Your task to perform on an android device: Clear all items from cart on walmart.com. Search for razer naga on walmart.com, select the first entry, and add it to the cart. Image 0: 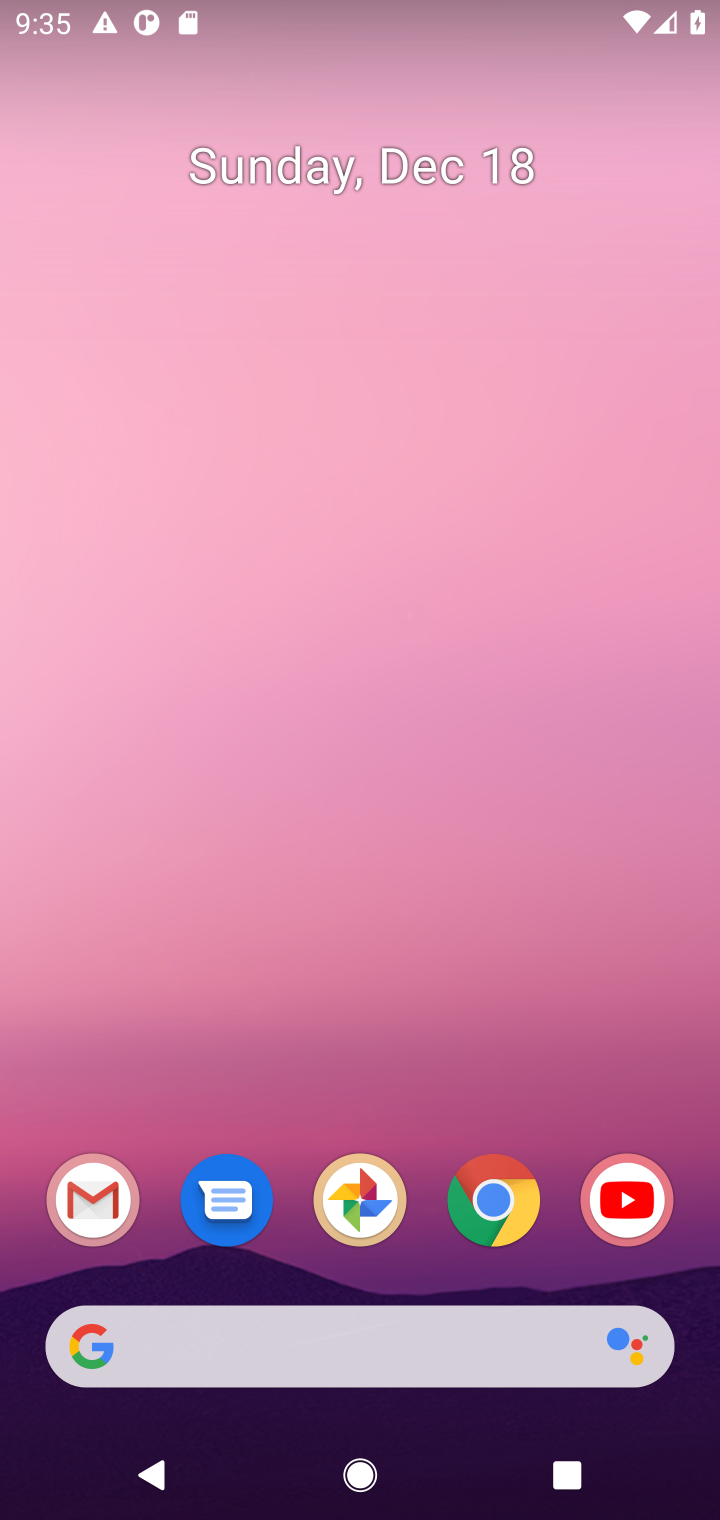
Step 0: click (493, 1207)
Your task to perform on an android device: Clear all items from cart on walmart.com. Search for razer naga on walmart.com, select the first entry, and add it to the cart. Image 1: 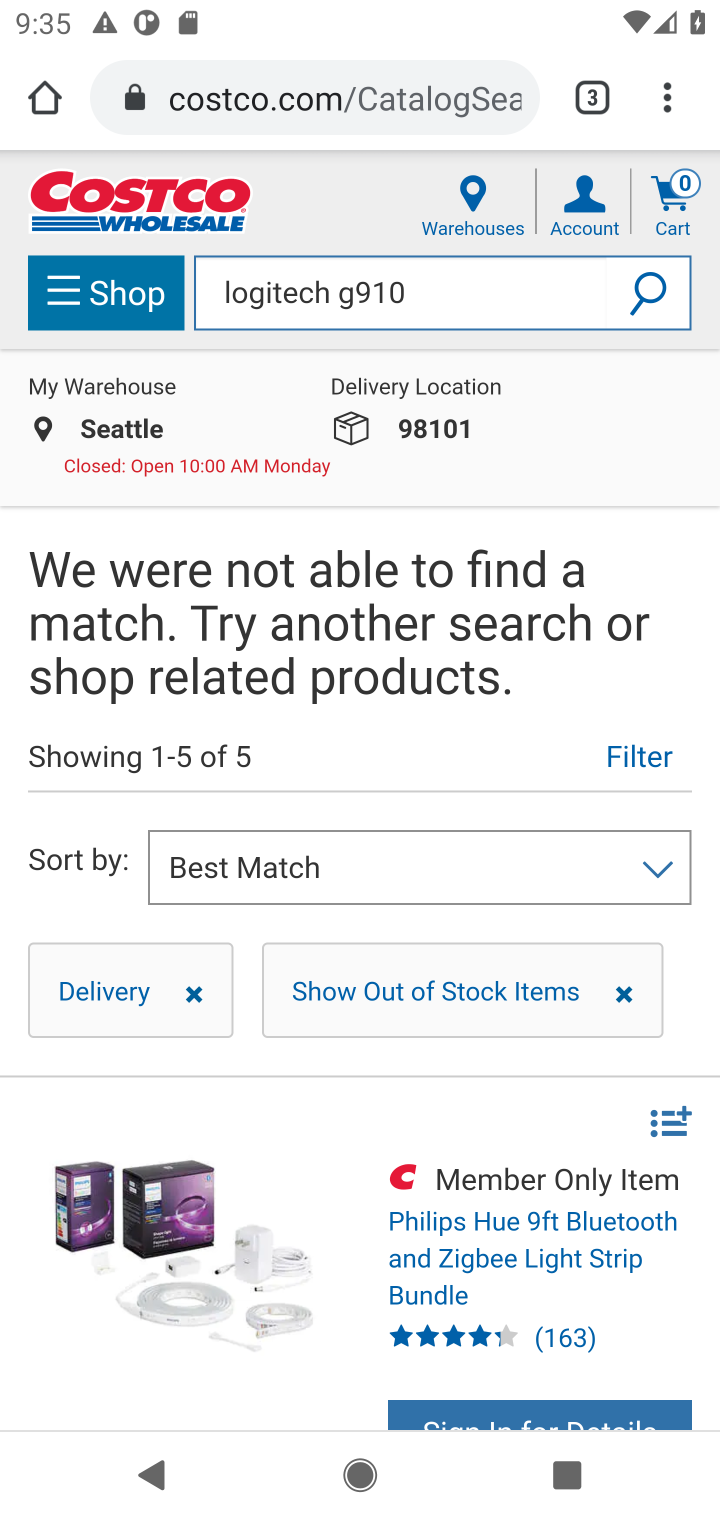
Step 1: click (252, 108)
Your task to perform on an android device: Clear all items from cart on walmart.com. Search for razer naga on walmart.com, select the first entry, and add it to the cart. Image 2: 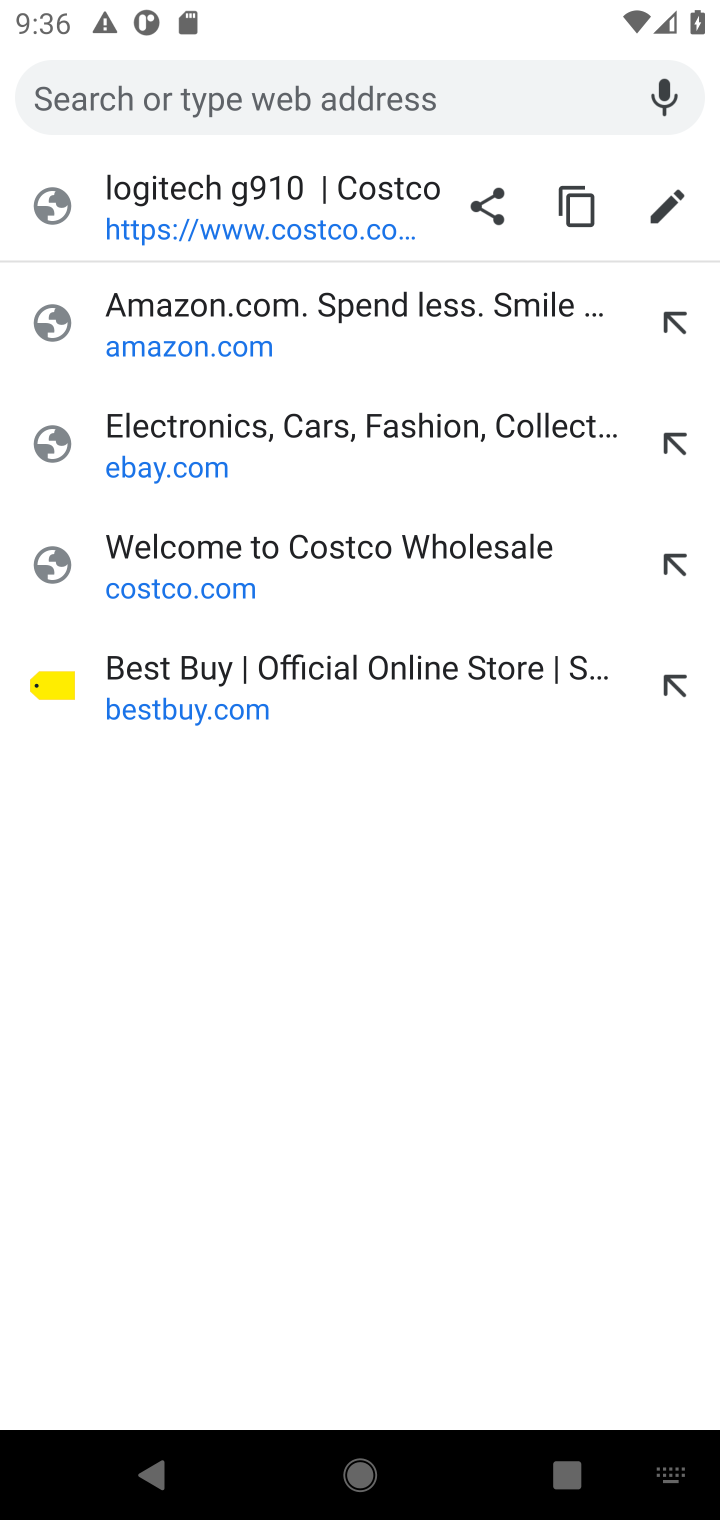
Step 2: type "walmart.com"
Your task to perform on an android device: Clear all items from cart on walmart.com. Search for razer naga on walmart.com, select the first entry, and add it to the cart. Image 3: 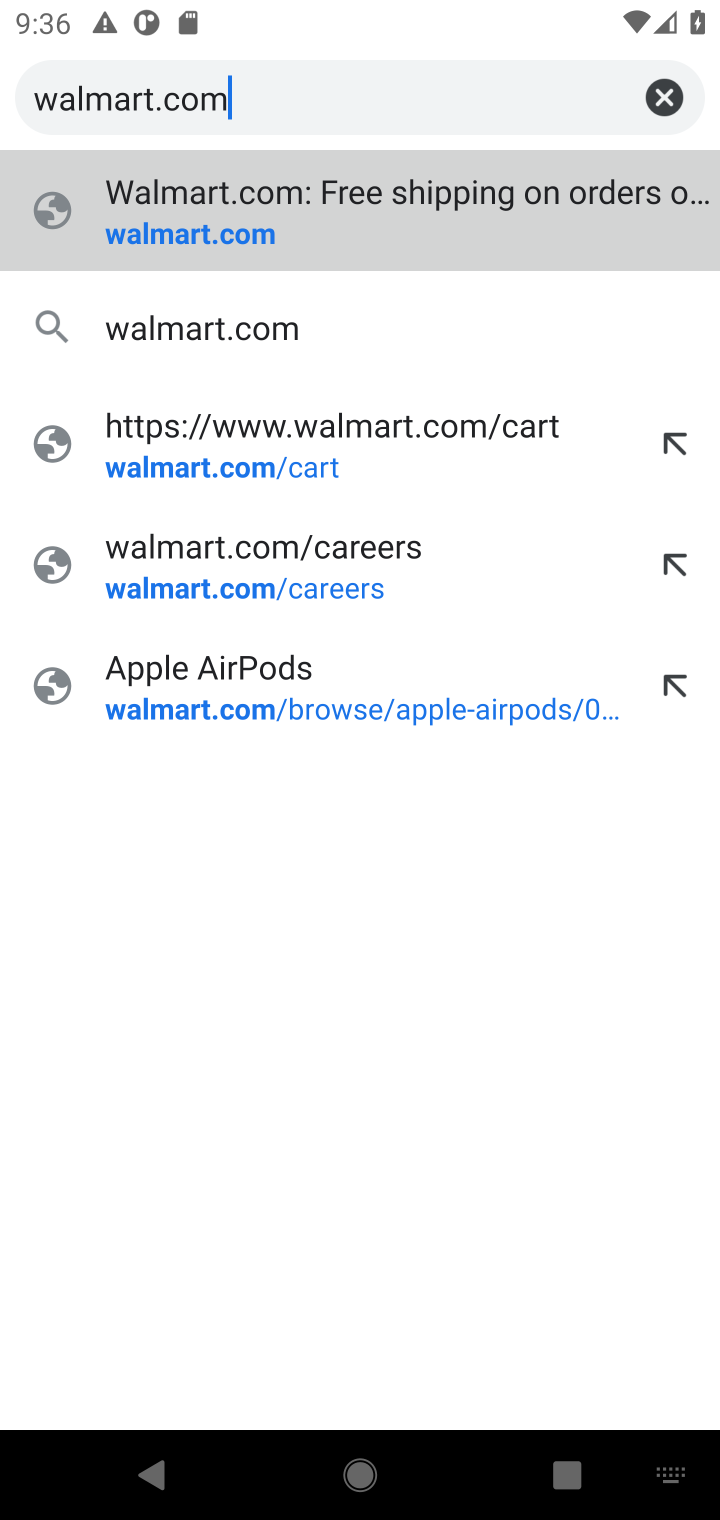
Step 3: click (164, 243)
Your task to perform on an android device: Clear all items from cart on walmart.com. Search for razer naga on walmart.com, select the first entry, and add it to the cart. Image 4: 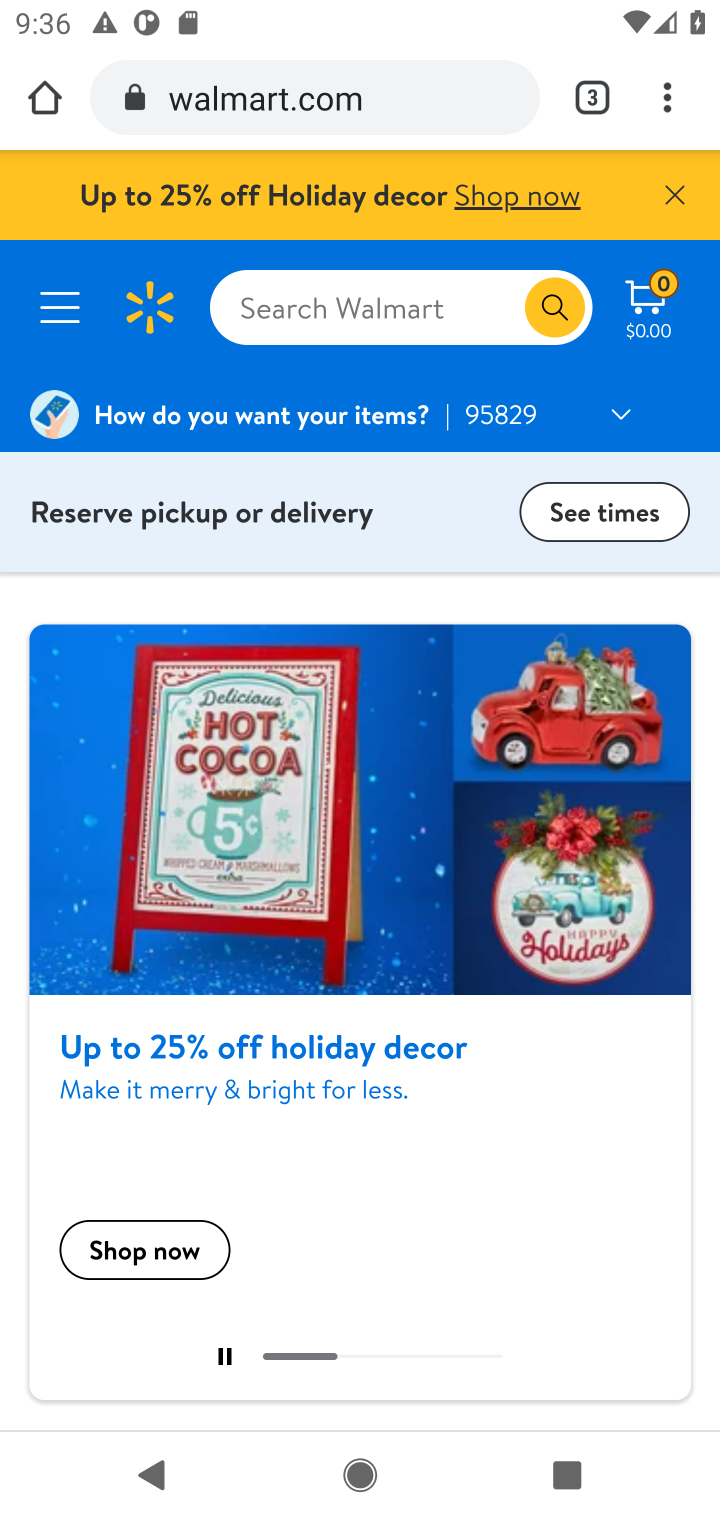
Step 4: click (652, 306)
Your task to perform on an android device: Clear all items from cart on walmart.com. Search for razer naga on walmart.com, select the first entry, and add it to the cart. Image 5: 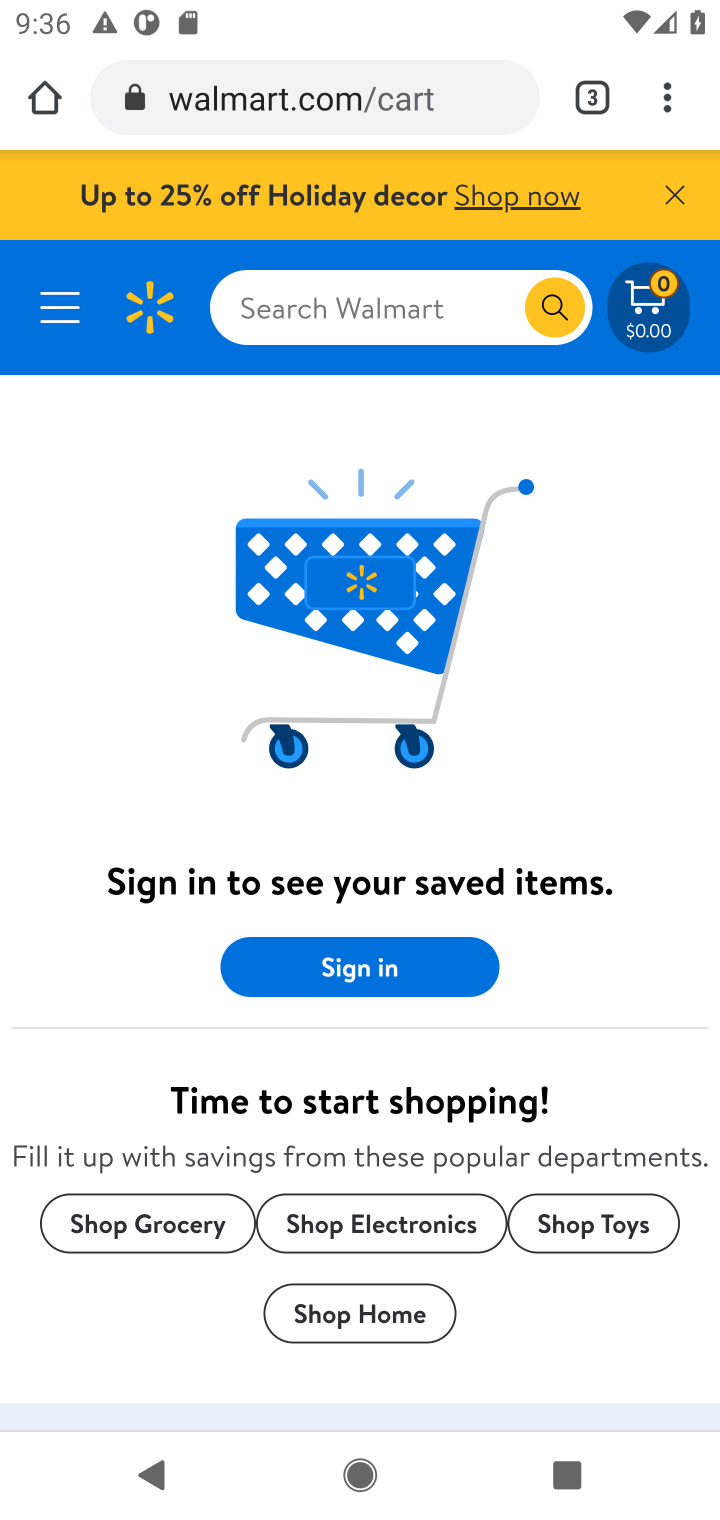
Step 5: click (354, 310)
Your task to perform on an android device: Clear all items from cart on walmart.com. Search for razer naga on walmart.com, select the first entry, and add it to the cart. Image 6: 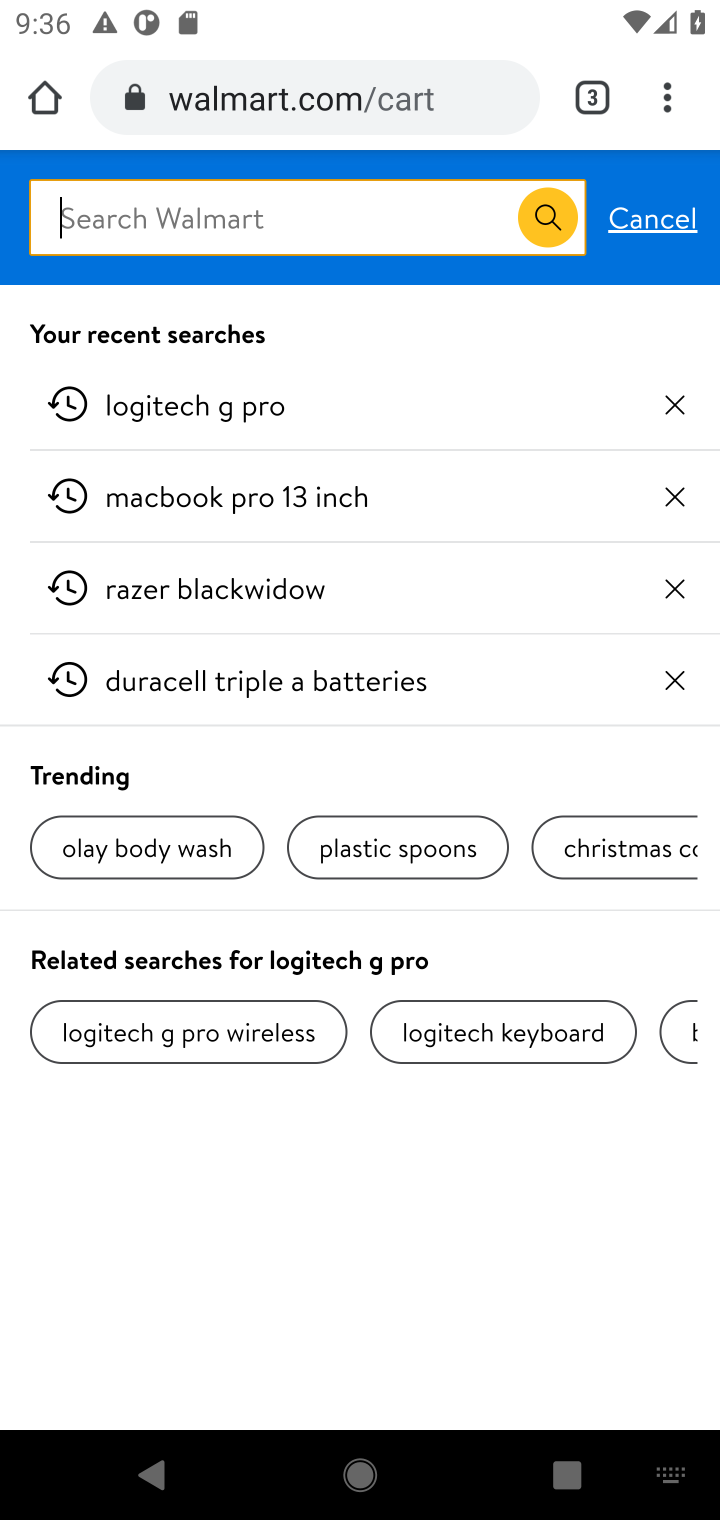
Step 6: type "razer naga"
Your task to perform on an android device: Clear all items from cart on walmart.com. Search for razer naga on walmart.com, select the first entry, and add it to the cart. Image 7: 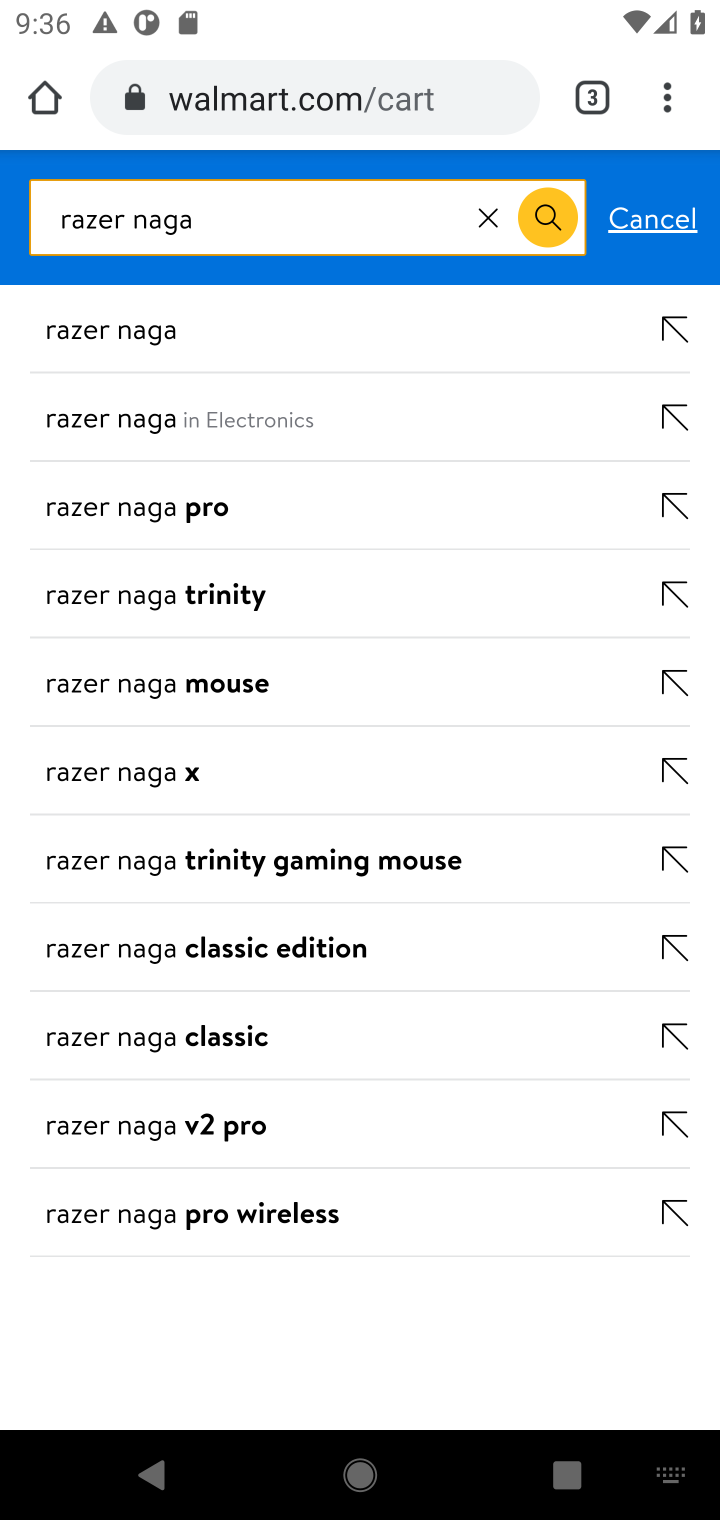
Step 7: click (105, 307)
Your task to perform on an android device: Clear all items from cart on walmart.com. Search for razer naga on walmart.com, select the first entry, and add it to the cart. Image 8: 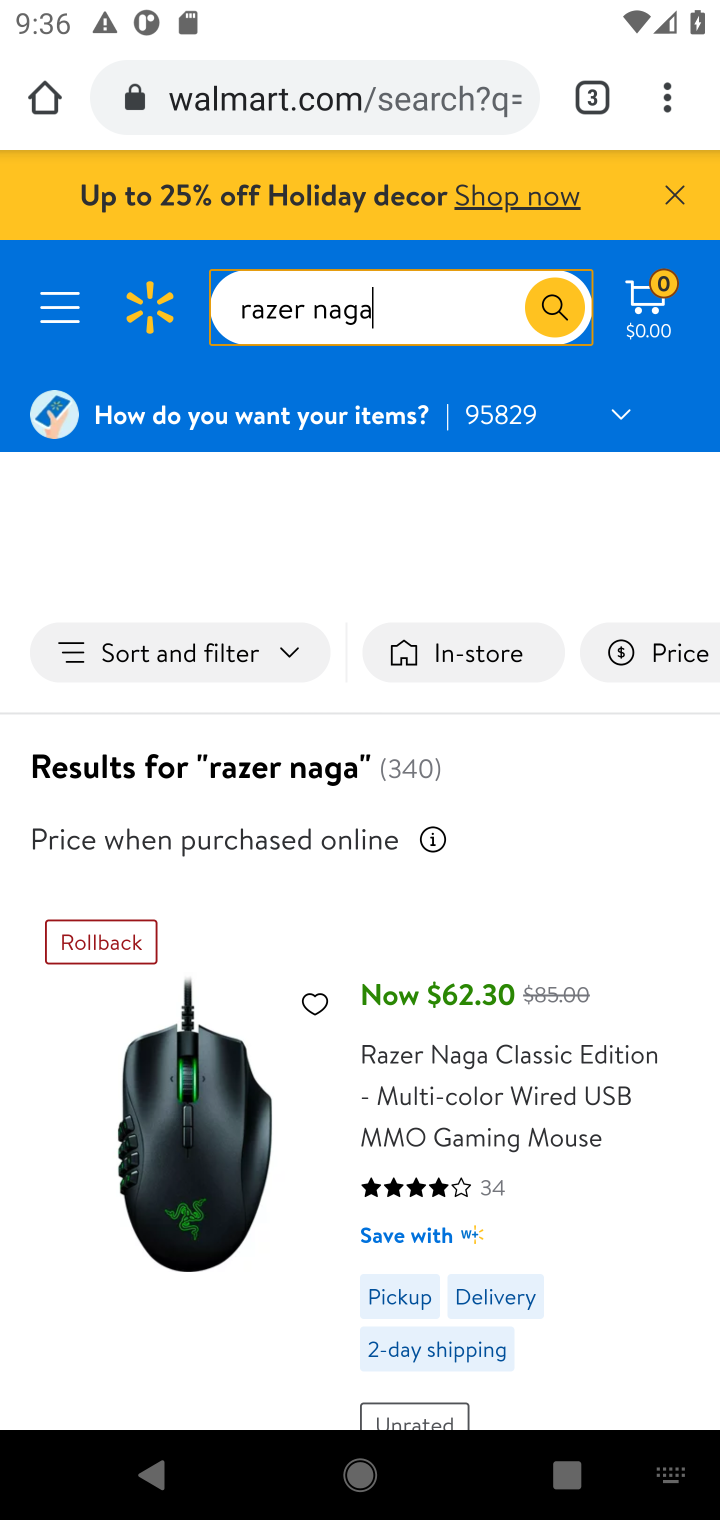
Step 8: drag from (266, 1013) to (299, 576)
Your task to perform on an android device: Clear all items from cart on walmart.com. Search for razer naga on walmart.com, select the first entry, and add it to the cart. Image 9: 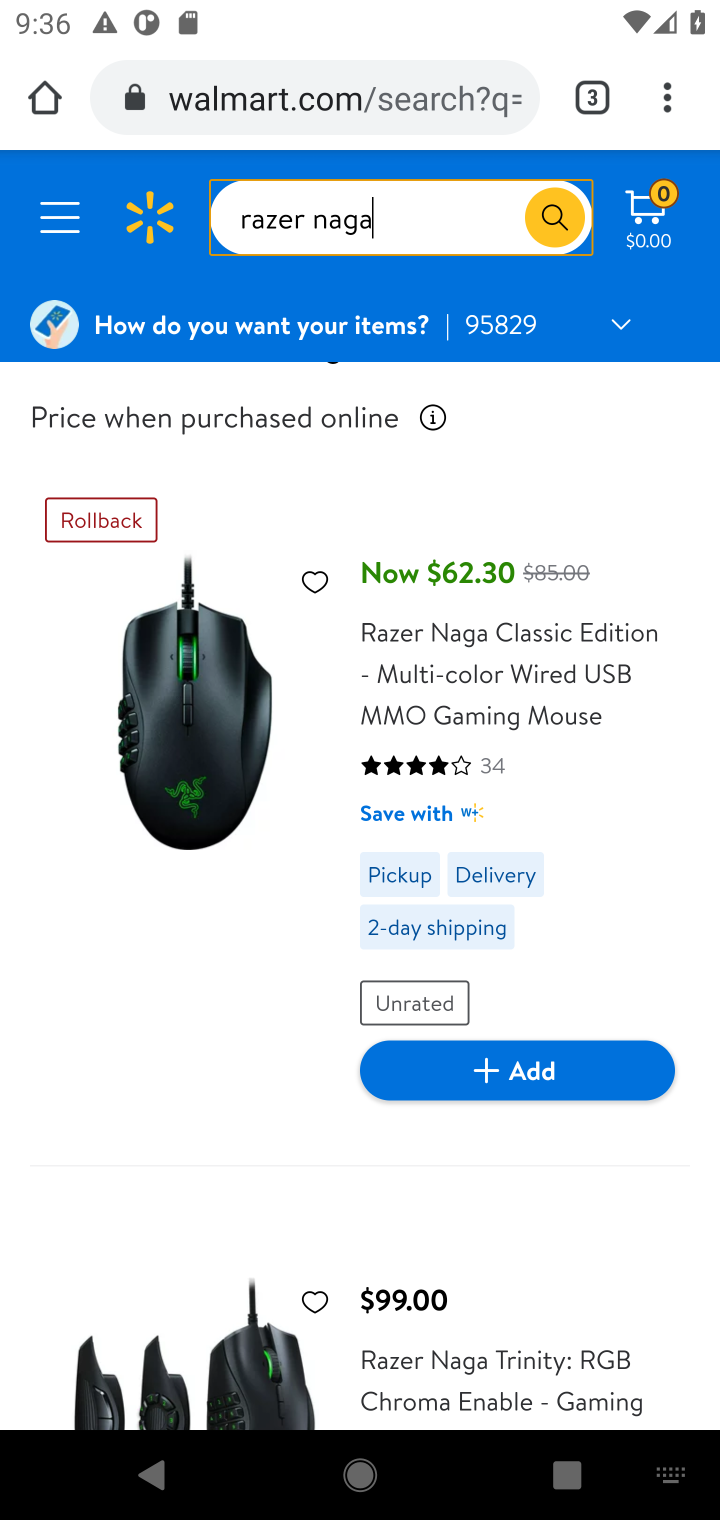
Step 9: click (532, 1074)
Your task to perform on an android device: Clear all items from cart on walmart.com. Search for razer naga on walmart.com, select the first entry, and add it to the cart. Image 10: 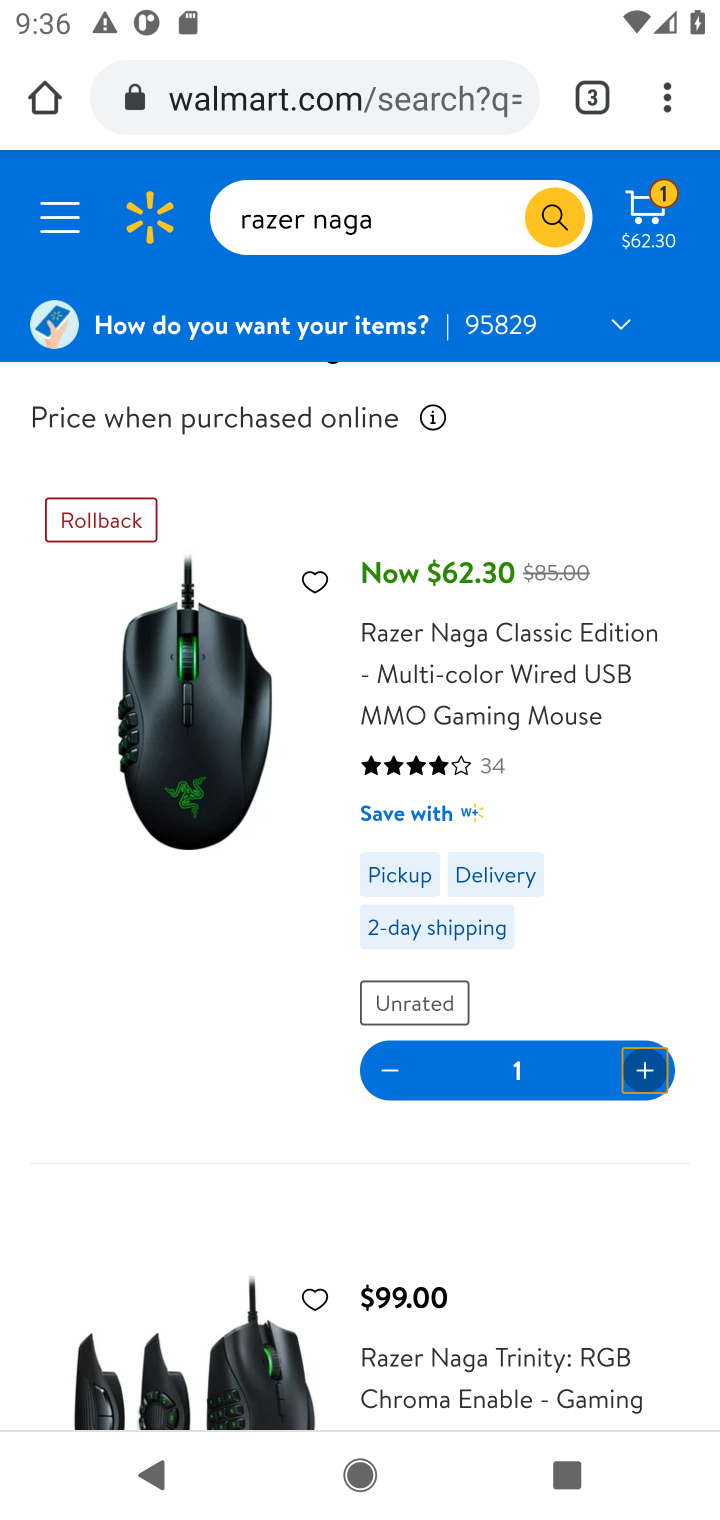
Step 10: task complete